Your task to perform on an android device: show emergency info Image 0: 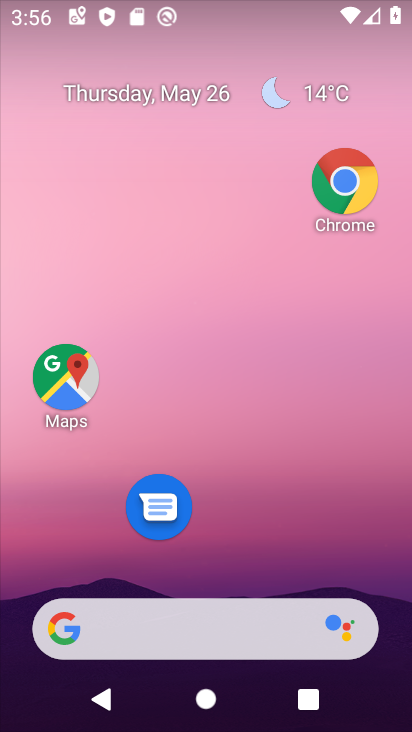
Step 0: drag from (280, 539) to (296, 122)
Your task to perform on an android device: show emergency info Image 1: 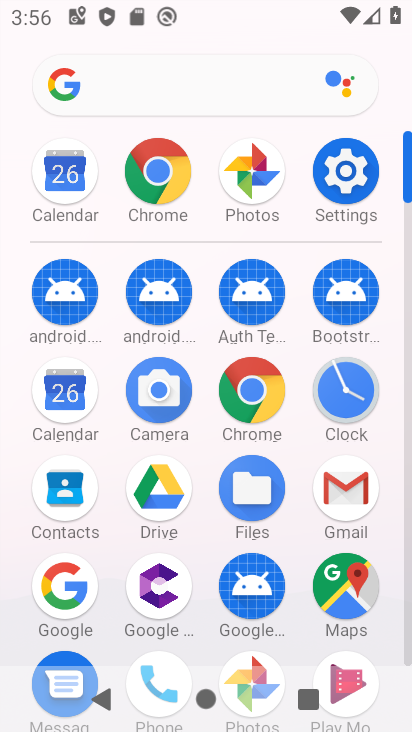
Step 1: drag from (191, 344) to (229, 93)
Your task to perform on an android device: show emergency info Image 2: 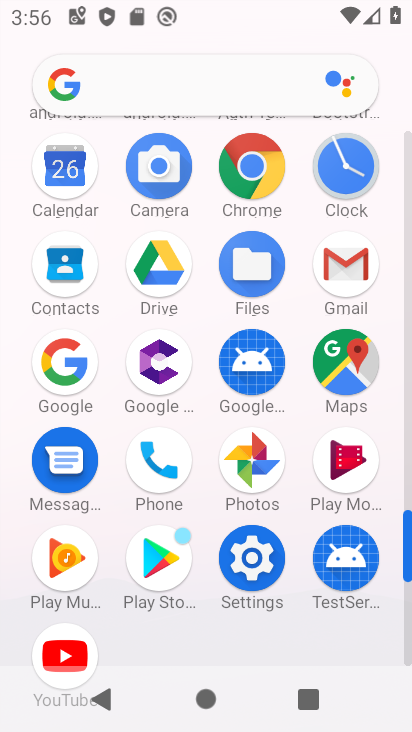
Step 2: click (254, 555)
Your task to perform on an android device: show emergency info Image 3: 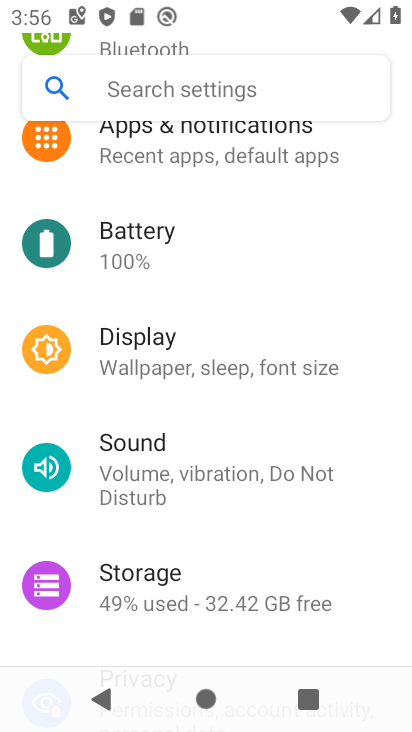
Step 3: drag from (312, 497) to (364, 179)
Your task to perform on an android device: show emergency info Image 4: 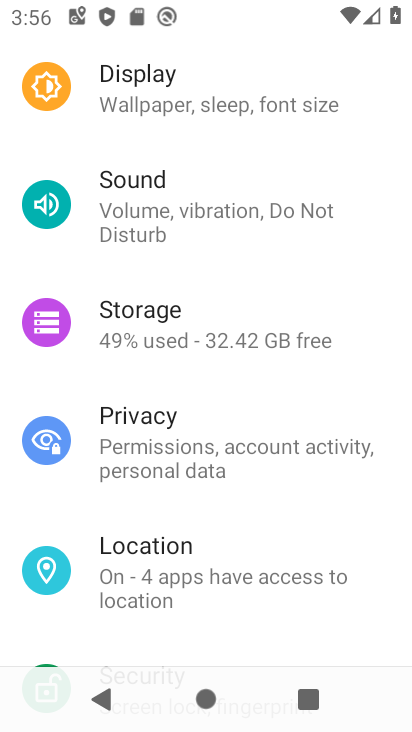
Step 4: drag from (261, 625) to (327, 171)
Your task to perform on an android device: show emergency info Image 5: 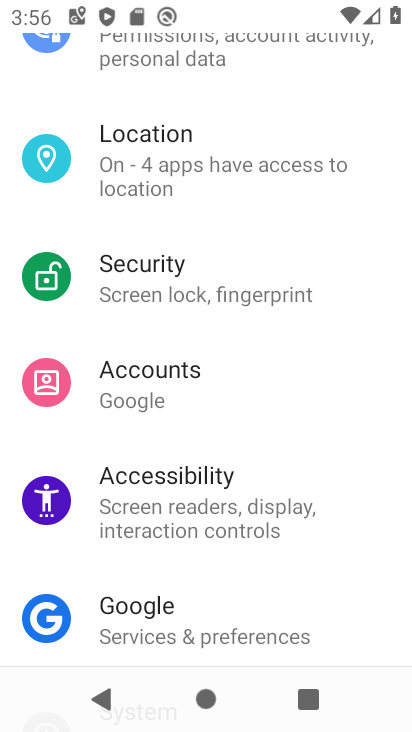
Step 5: drag from (257, 605) to (296, 187)
Your task to perform on an android device: show emergency info Image 6: 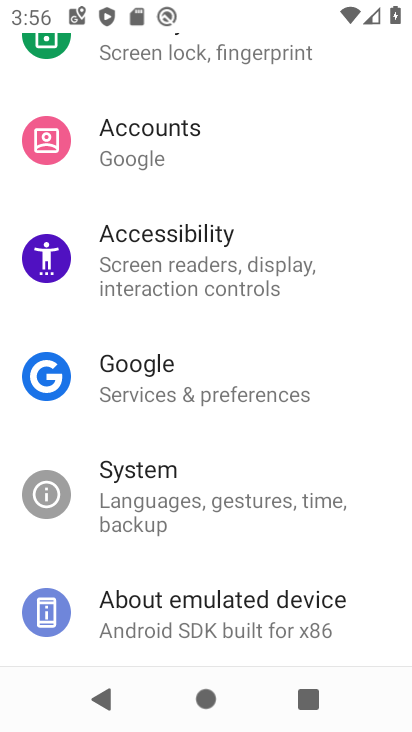
Step 6: click (169, 606)
Your task to perform on an android device: show emergency info Image 7: 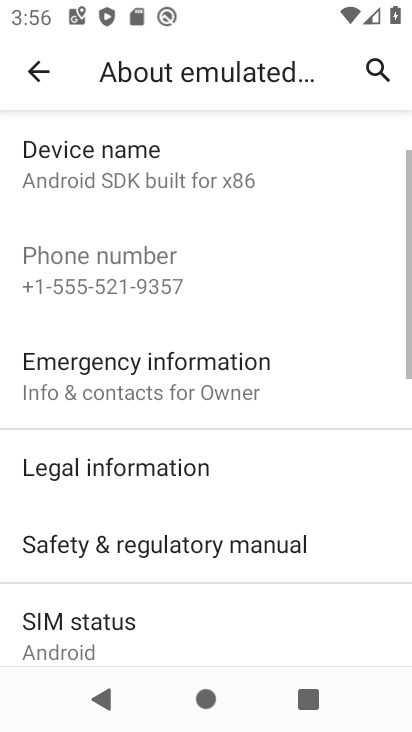
Step 7: click (129, 366)
Your task to perform on an android device: show emergency info Image 8: 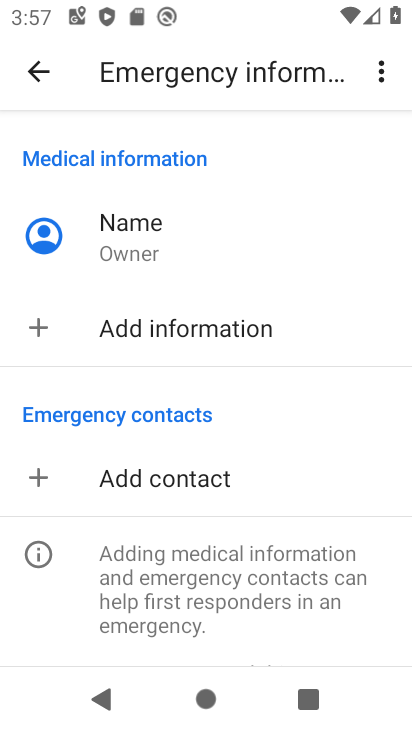
Step 8: task complete